Your task to perform on an android device: Search for the best custom wallets on Etsy. Image 0: 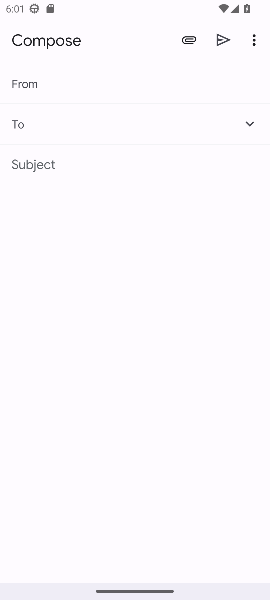
Step 0: press home button
Your task to perform on an android device: Search for the best custom wallets on Etsy. Image 1: 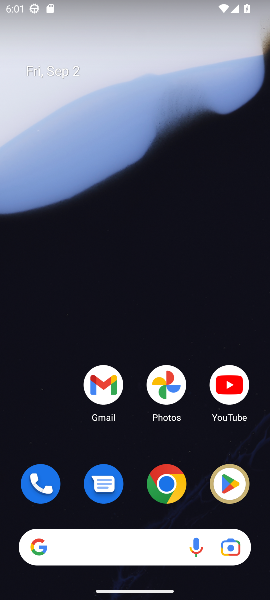
Step 1: click (170, 484)
Your task to perform on an android device: Search for the best custom wallets on Etsy. Image 2: 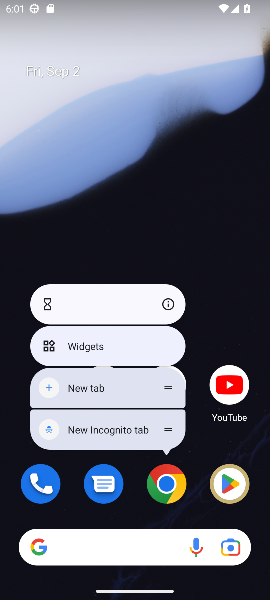
Step 2: click (164, 483)
Your task to perform on an android device: Search for the best custom wallets on Etsy. Image 3: 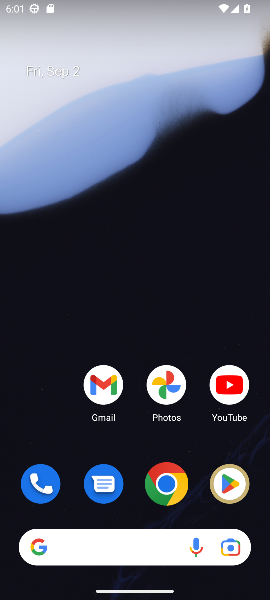
Step 3: click (164, 483)
Your task to perform on an android device: Search for the best custom wallets on Etsy. Image 4: 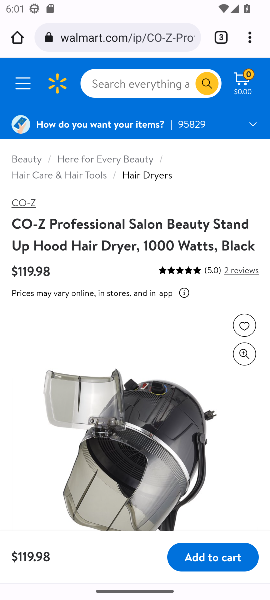
Step 4: click (176, 37)
Your task to perform on an android device: Search for the best custom wallets on Etsy. Image 5: 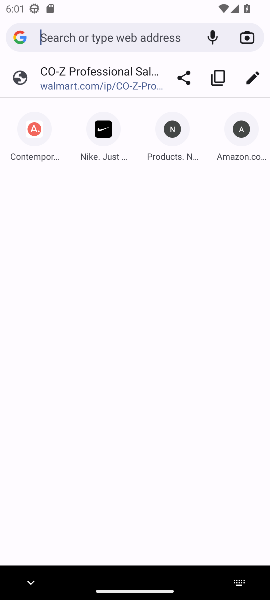
Step 5: type "Etsy"
Your task to perform on an android device: Search for the best custom wallets on Etsy. Image 6: 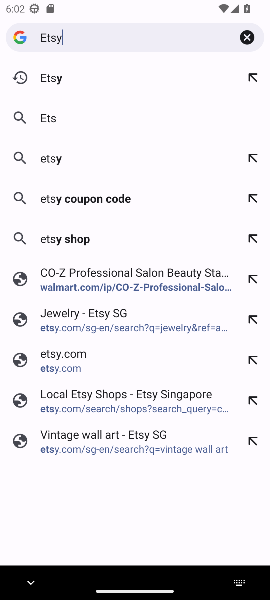
Step 6: press enter
Your task to perform on an android device: Search for the best custom wallets on Etsy. Image 7: 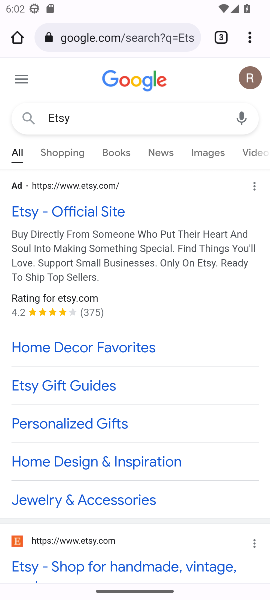
Step 7: drag from (173, 451) to (171, 398)
Your task to perform on an android device: Search for the best custom wallets on Etsy. Image 8: 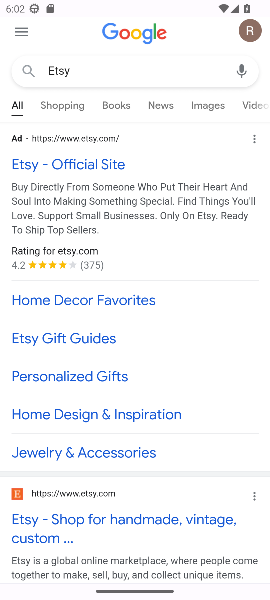
Step 8: click (94, 159)
Your task to perform on an android device: Search for the best custom wallets on Etsy. Image 9: 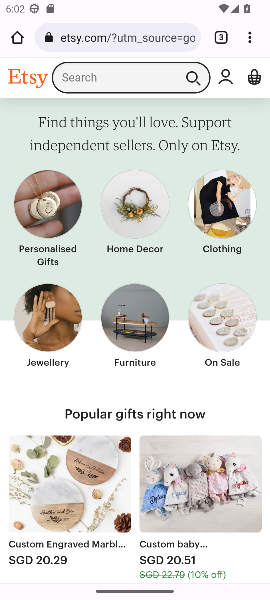
Step 9: click (116, 67)
Your task to perform on an android device: Search for the best custom wallets on Etsy. Image 10: 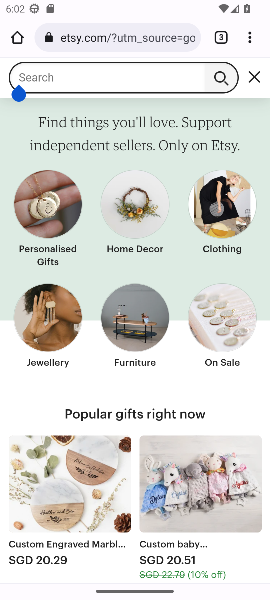
Step 10: press enter
Your task to perform on an android device: Search for the best custom wallets on Etsy. Image 11: 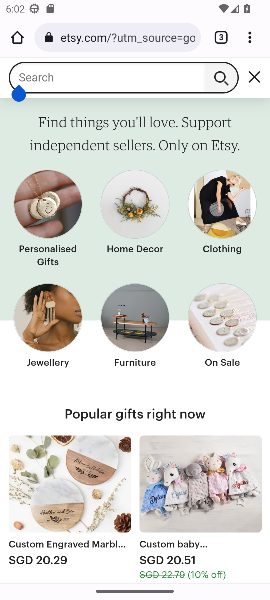
Step 11: type " best custom wallets"
Your task to perform on an android device: Search for the best custom wallets on Etsy. Image 12: 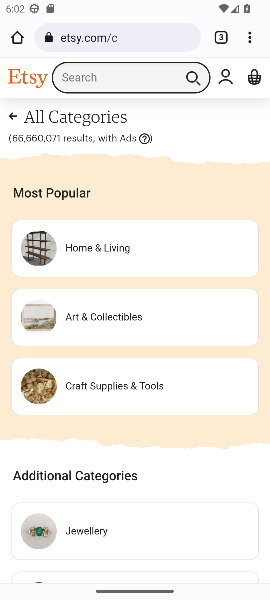
Step 12: drag from (155, 498) to (129, 515)
Your task to perform on an android device: Search for the best custom wallets on Etsy. Image 13: 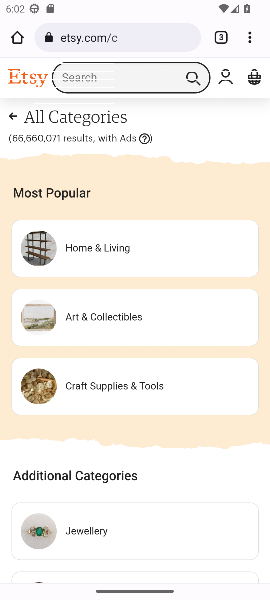
Step 13: click (111, 64)
Your task to perform on an android device: Search for the best custom wallets on Etsy. Image 14: 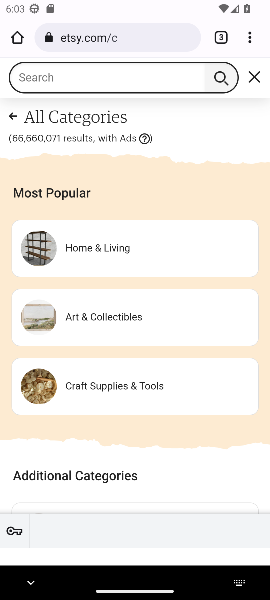
Step 14: type "custom wallets"
Your task to perform on an android device: Search for the best custom wallets on Etsy. Image 15: 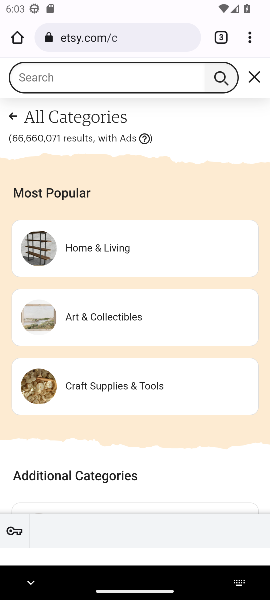
Step 15: press enter
Your task to perform on an android device: Search for the best custom wallets on Etsy. Image 16: 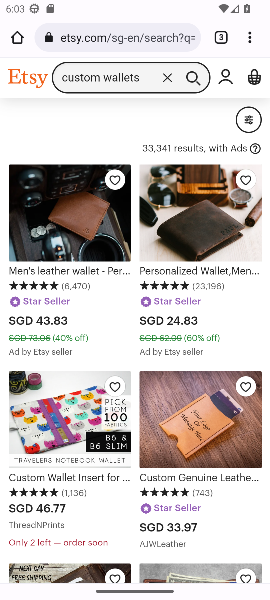
Step 16: task complete